Your task to perform on an android device: toggle pop-ups in chrome Image 0: 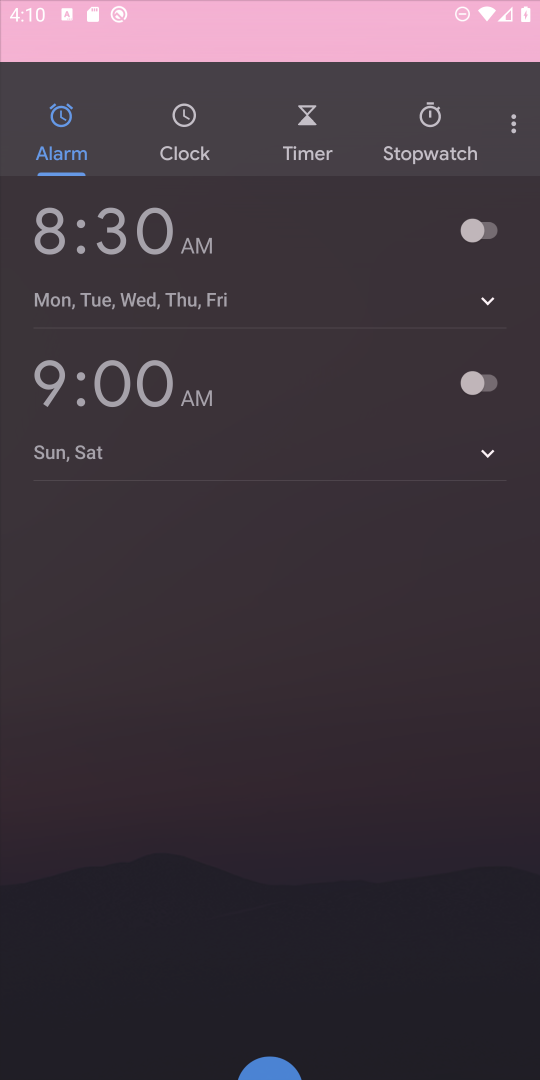
Step 0: click (413, 8)
Your task to perform on an android device: toggle pop-ups in chrome Image 1: 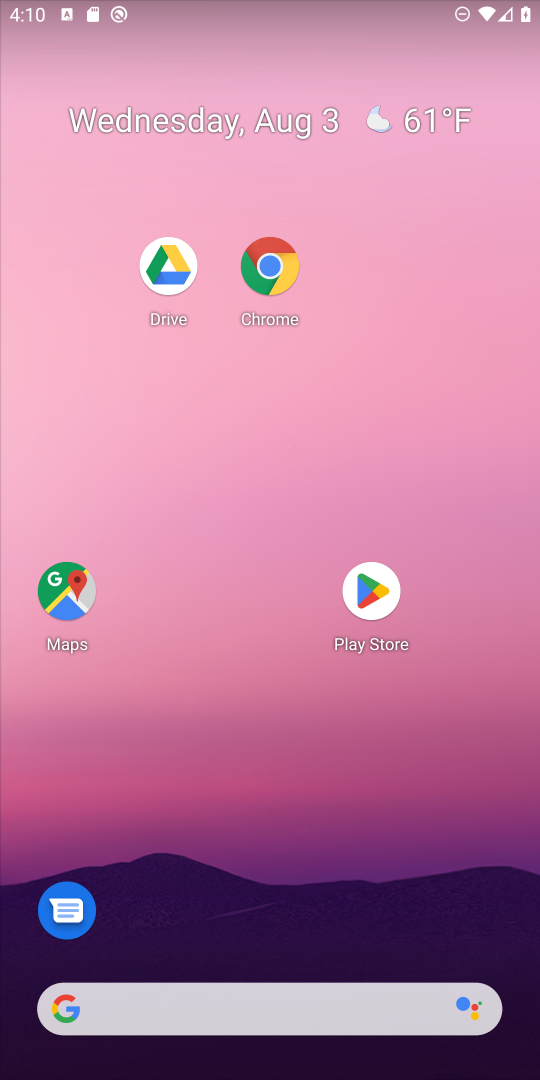
Step 1: drag from (342, 1007) to (469, 17)
Your task to perform on an android device: toggle pop-ups in chrome Image 2: 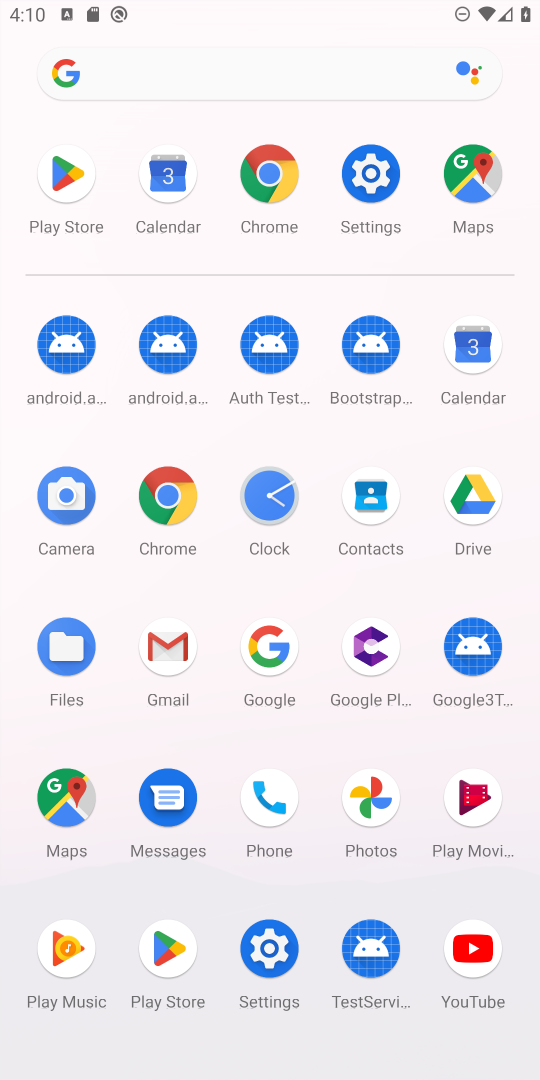
Step 2: click (369, 179)
Your task to perform on an android device: toggle pop-ups in chrome Image 3: 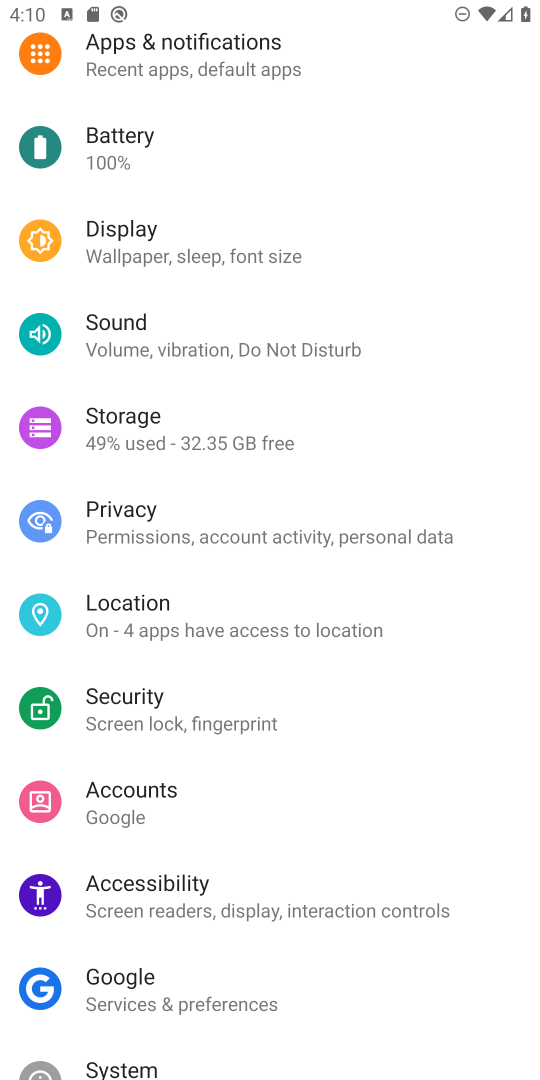
Step 3: press home button
Your task to perform on an android device: toggle pop-ups in chrome Image 4: 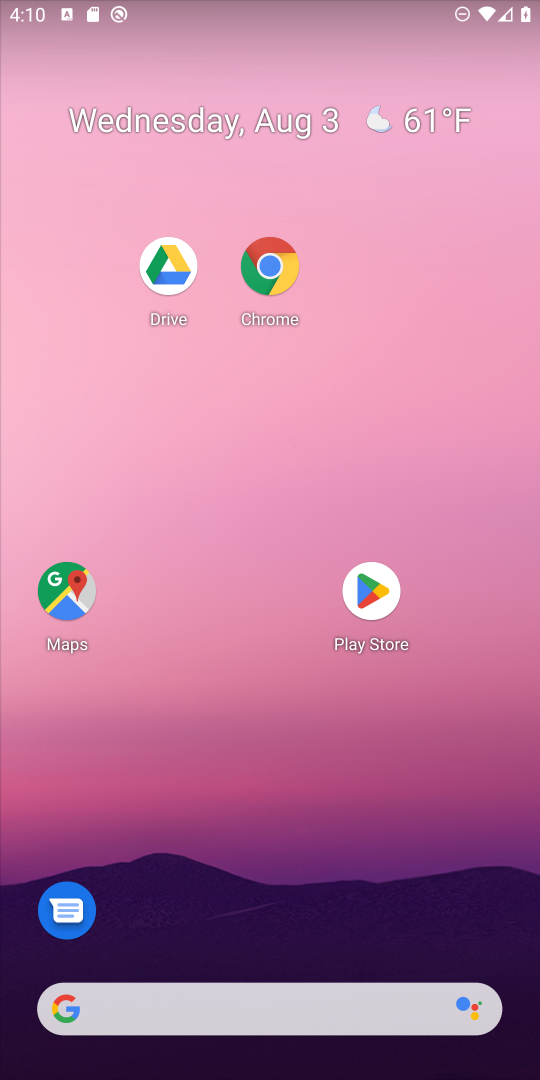
Step 4: drag from (393, 994) to (438, 1)
Your task to perform on an android device: toggle pop-ups in chrome Image 5: 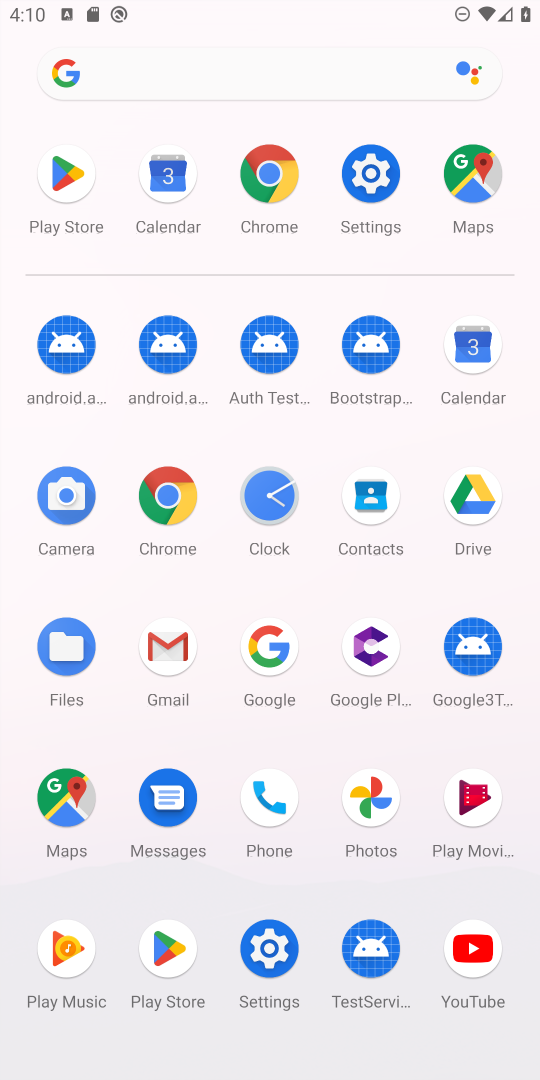
Step 5: click (166, 508)
Your task to perform on an android device: toggle pop-ups in chrome Image 6: 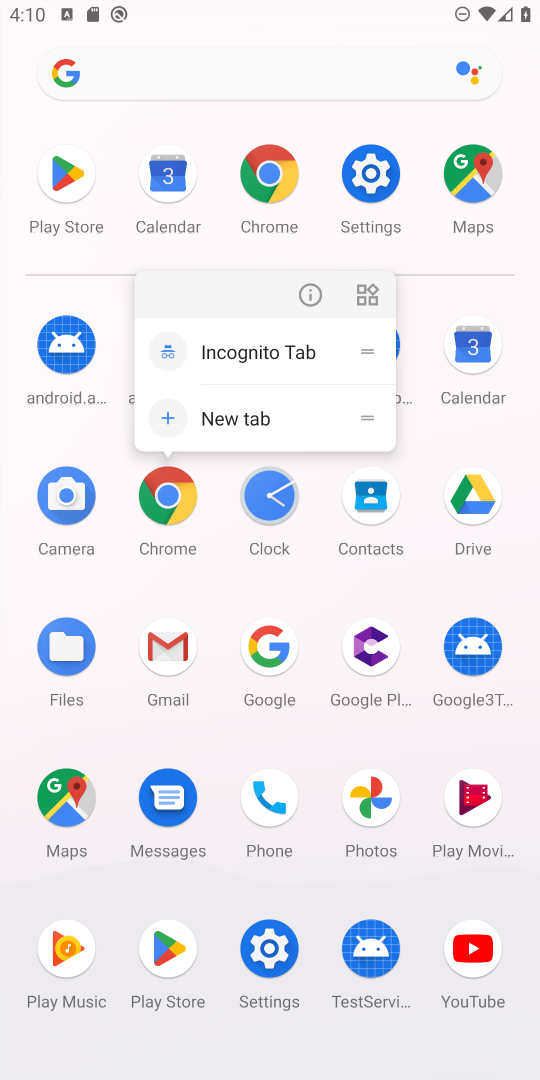
Step 6: click (166, 508)
Your task to perform on an android device: toggle pop-ups in chrome Image 7: 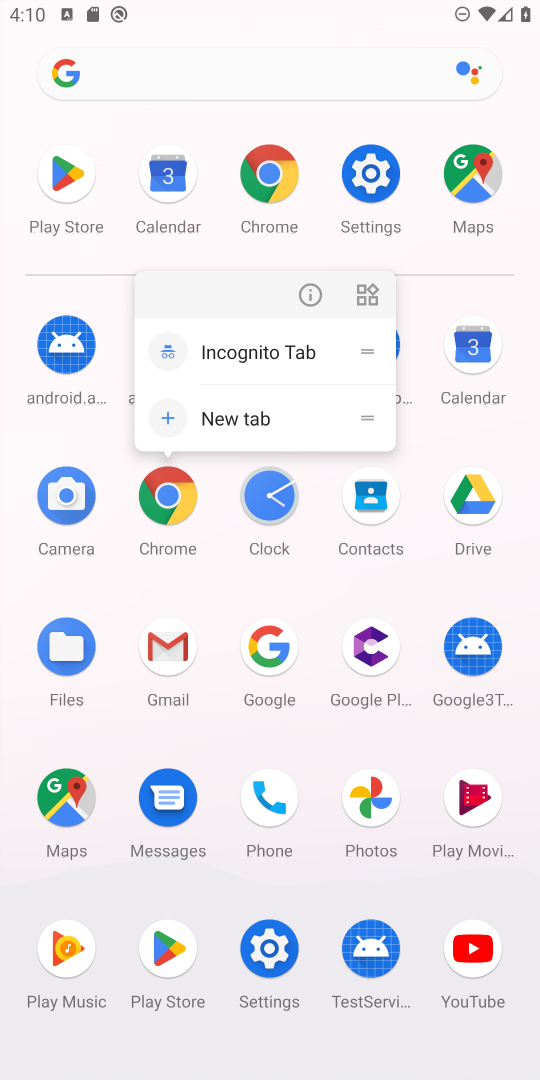
Step 7: click (173, 479)
Your task to perform on an android device: toggle pop-ups in chrome Image 8: 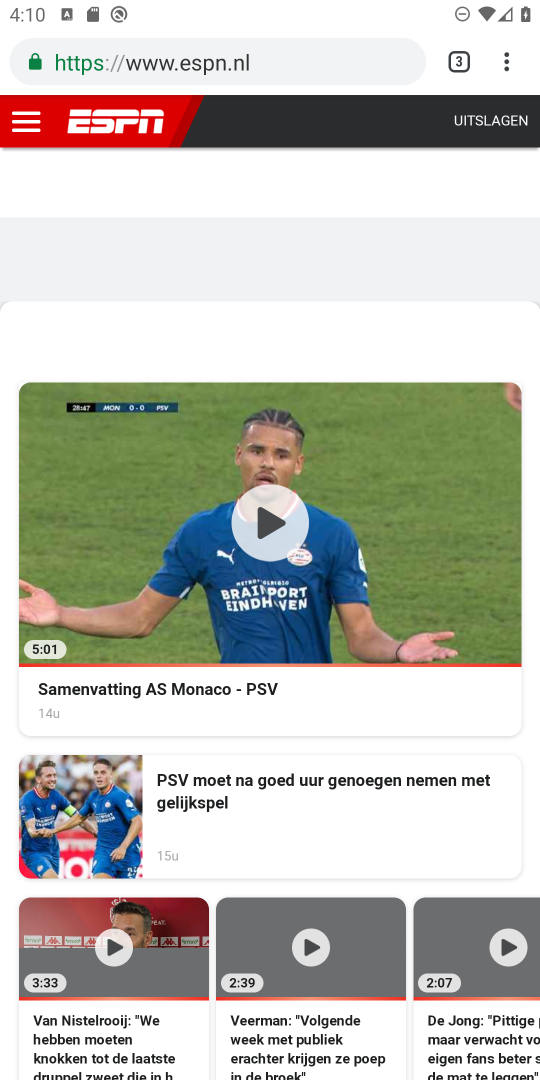
Step 8: drag from (499, 58) to (313, 756)
Your task to perform on an android device: toggle pop-ups in chrome Image 9: 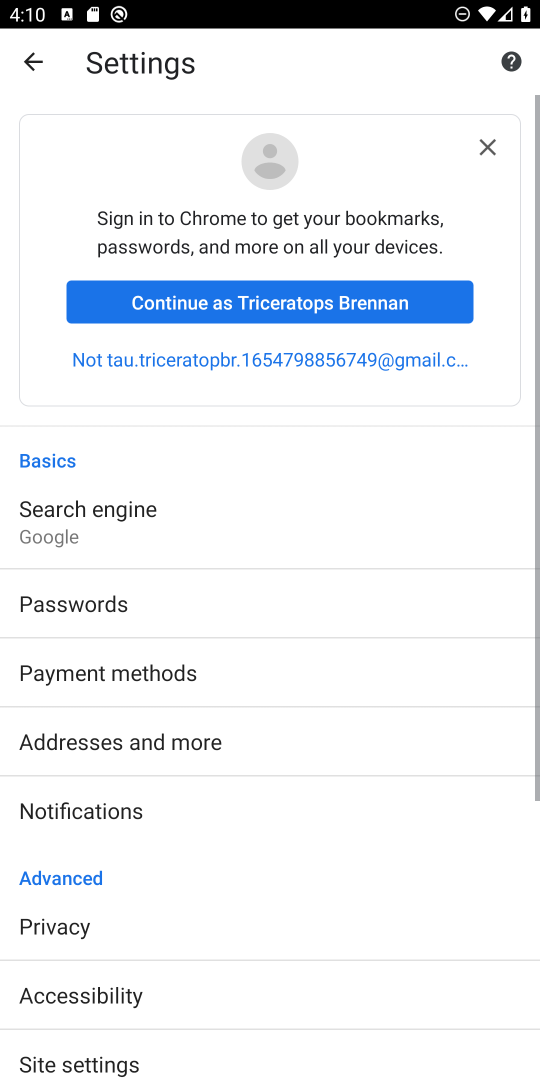
Step 9: drag from (170, 919) to (260, 418)
Your task to perform on an android device: toggle pop-ups in chrome Image 10: 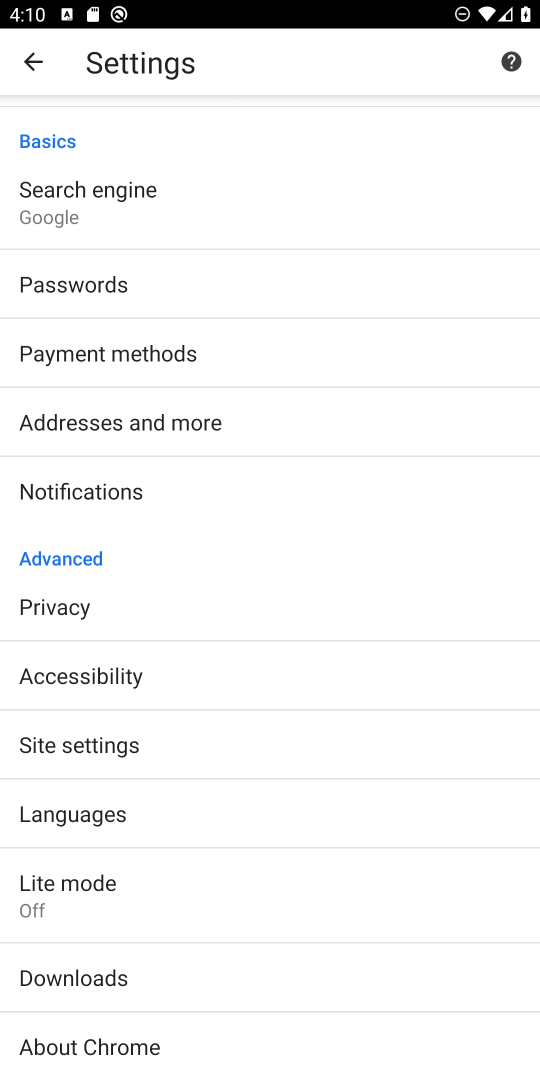
Step 10: click (199, 742)
Your task to perform on an android device: toggle pop-ups in chrome Image 11: 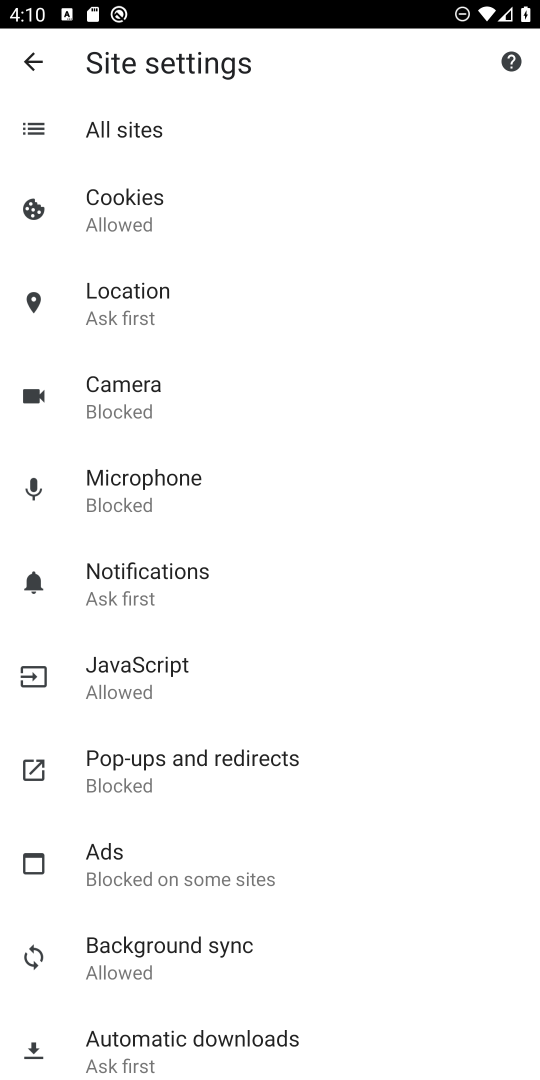
Step 11: click (184, 763)
Your task to perform on an android device: toggle pop-ups in chrome Image 12: 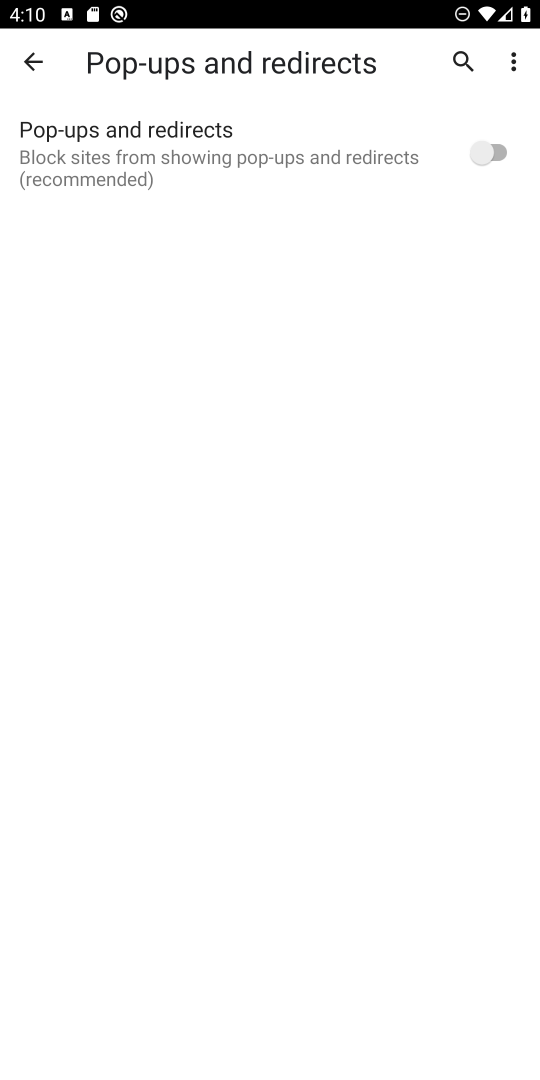
Step 12: click (493, 143)
Your task to perform on an android device: toggle pop-ups in chrome Image 13: 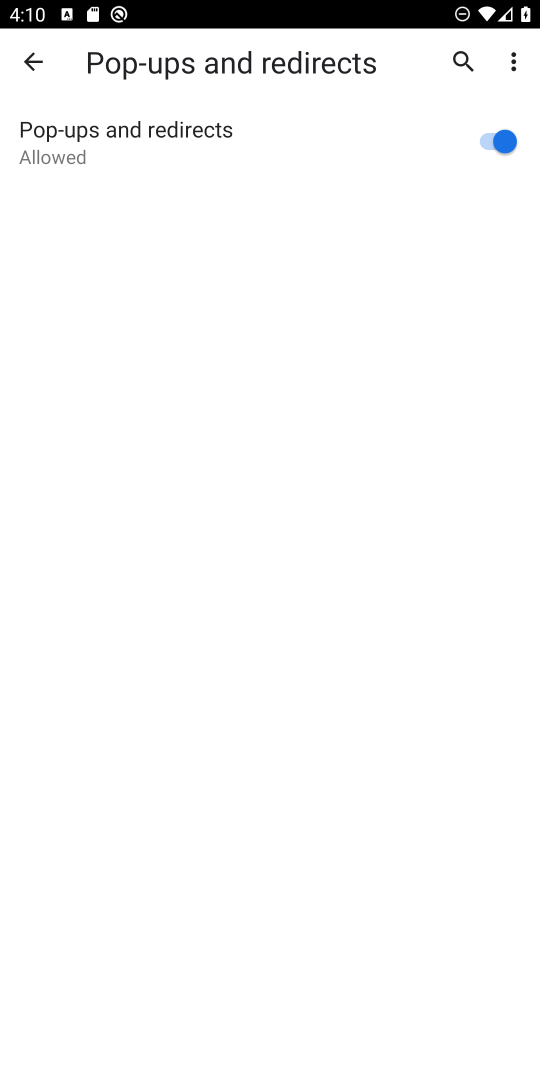
Step 13: task complete